Your task to perform on an android device: turn on improve location accuracy Image 0: 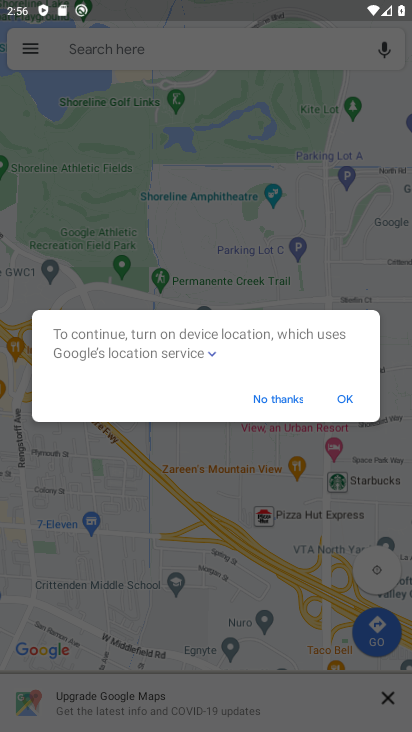
Step 0: press home button
Your task to perform on an android device: turn on improve location accuracy Image 1: 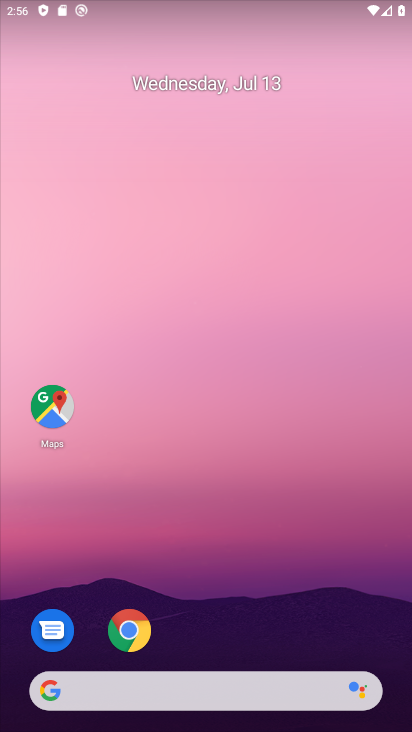
Step 1: drag from (174, 665) to (174, 225)
Your task to perform on an android device: turn on improve location accuracy Image 2: 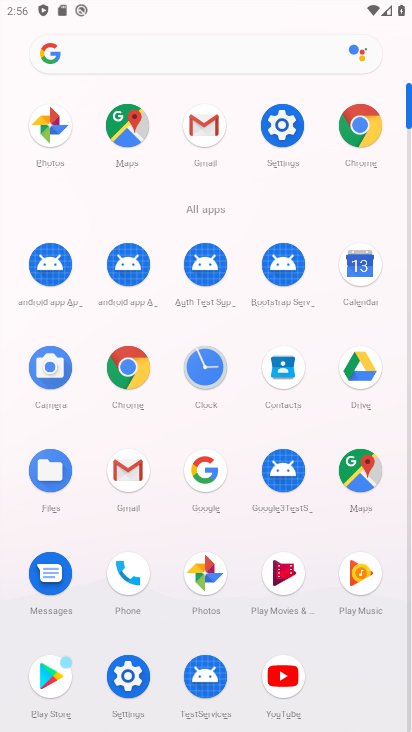
Step 2: click (278, 137)
Your task to perform on an android device: turn on improve location accuracy Image 3: 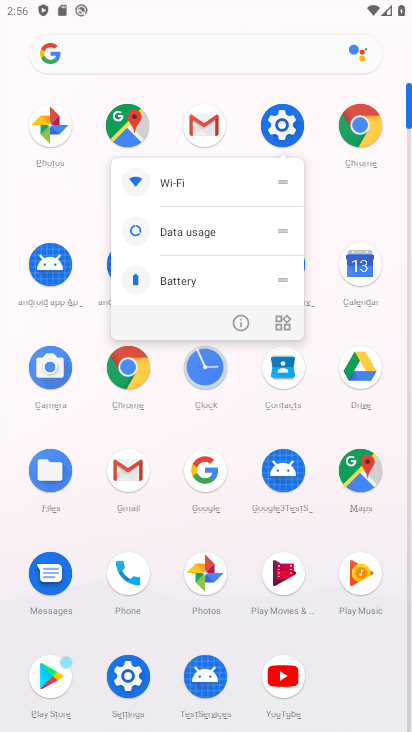
Step 3: click (276, 117)
Your task to perform on an android device: turn on improve location accuracy Image 4: 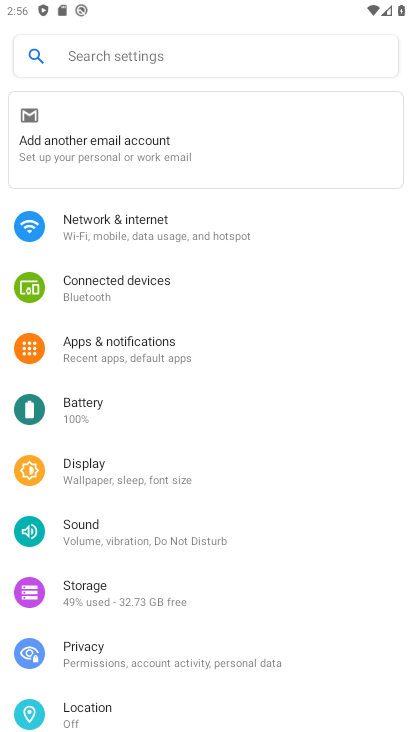
Step 4: click (96, 625)
Your task to perform on an android device: turn on improve location accuracy Image 5: 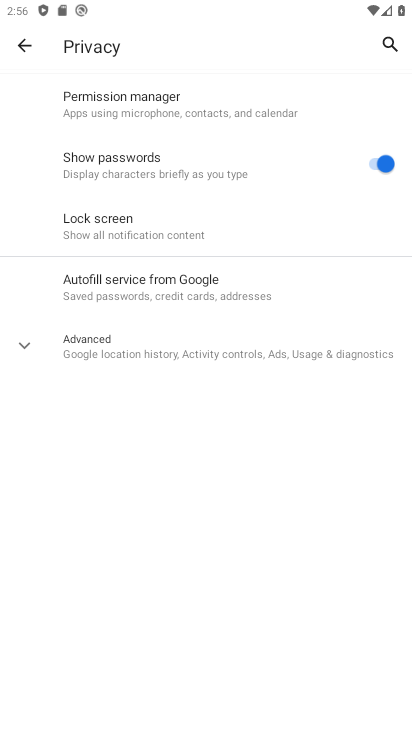
Step 5: click (15, 45)
Your task to perform on an android device: turn on improve location accuracy Image 6: 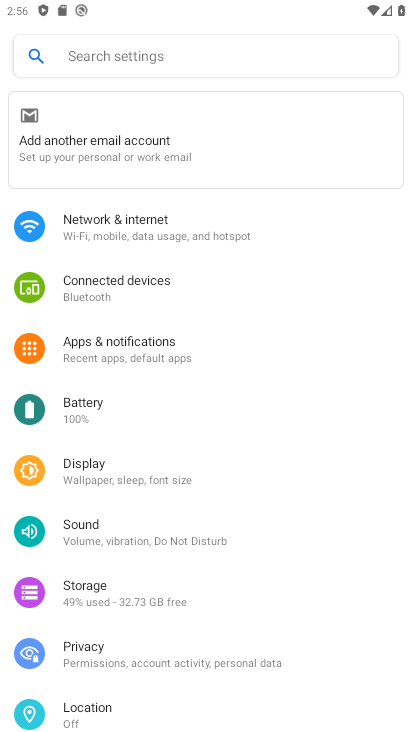
Step 6: click (102, 715)
Your task to perform on an android device: turn on improve location accuracy Image 7: 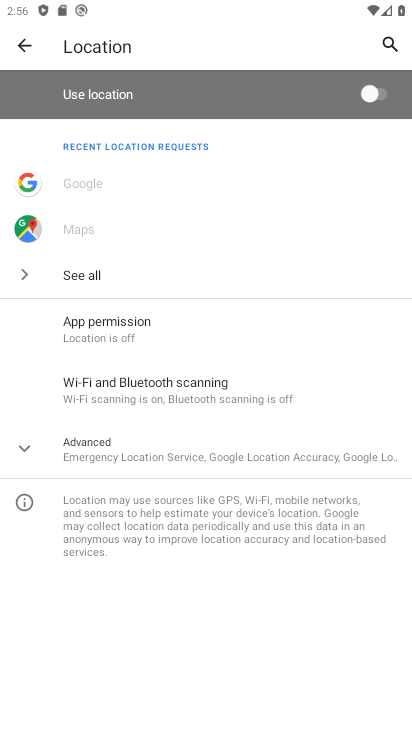
Step 7: click (375, 89)
Your task to perform on an android device: turn on improve location accuracy Image 8: 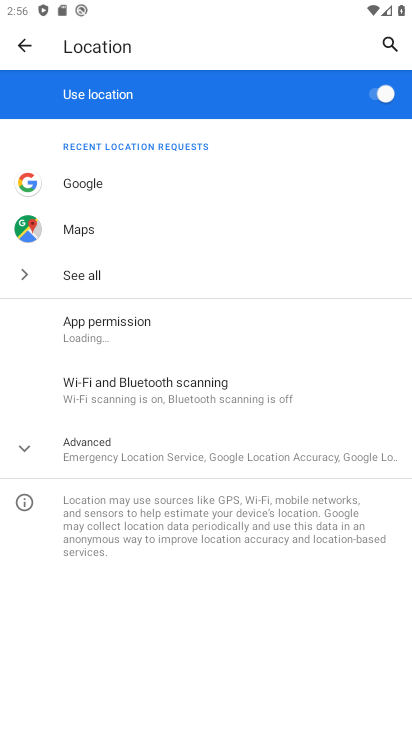
Step 8: click (128, 456)
Your task to perform on an android device: turn on improve location accuracy Image 9: 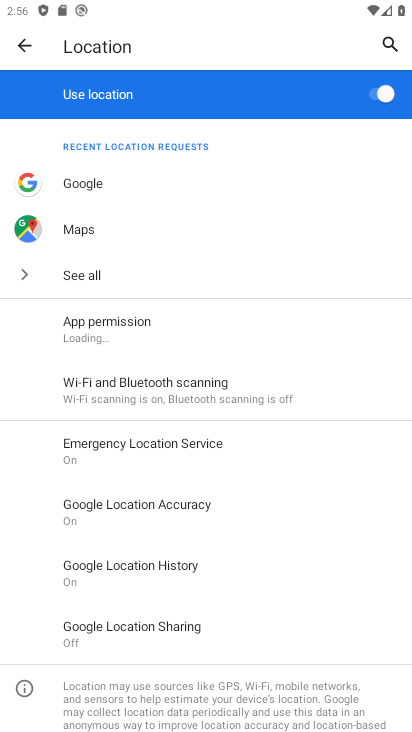
Step 9: click (152, 506)
Your task to perform on an android device: turn on improve location accuracy Image 10: 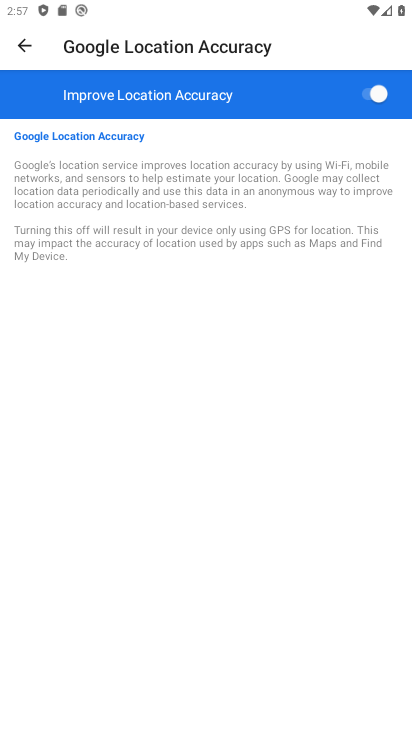
Step 10: task complete